Your task to perform on an android device: set default search engine in the chrome app Image 0: 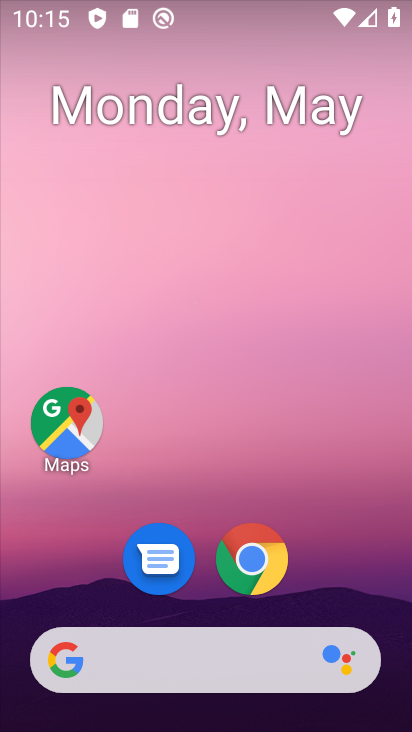
Step 0: click (251, 556)
Your task to perform on an android device: set default search engine in the chrome app Image 1: 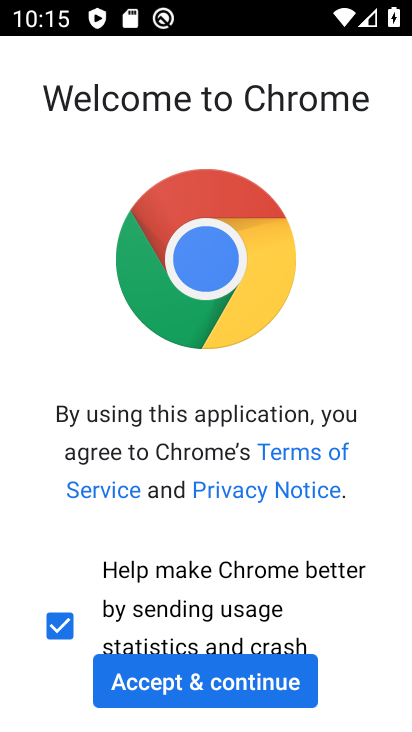
Step 1: click (244, 692)
Your task to perform on an android device: set default search engine in the chrome app Image 2: 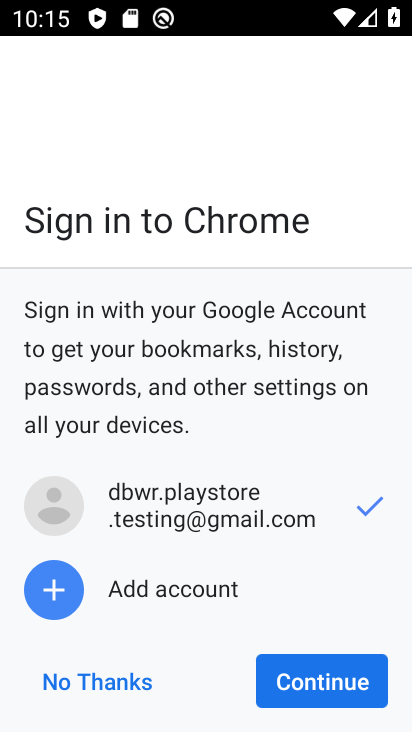
Step 2: click (336, 687)
Your task to perform on an android device: set default search engine in the chrome app Image 3: 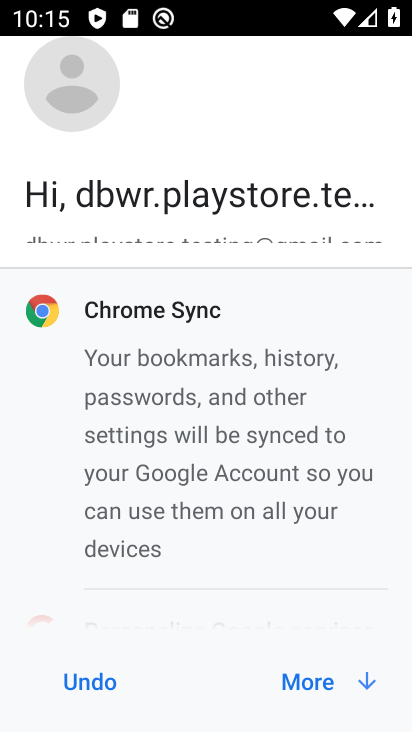
Step 3: click (336, 687)
Your task to perform on an android device: set default search engine in the chrome app Image 4: 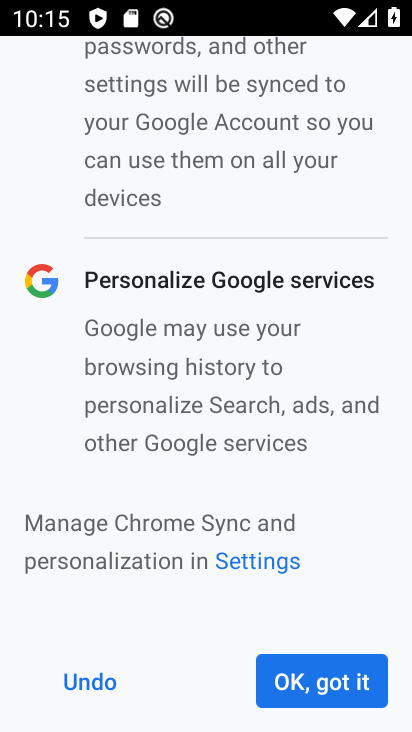
Step 4: click (336, 687)
Your task to perform on an android device: set default search engine in the chrome app Image 5: 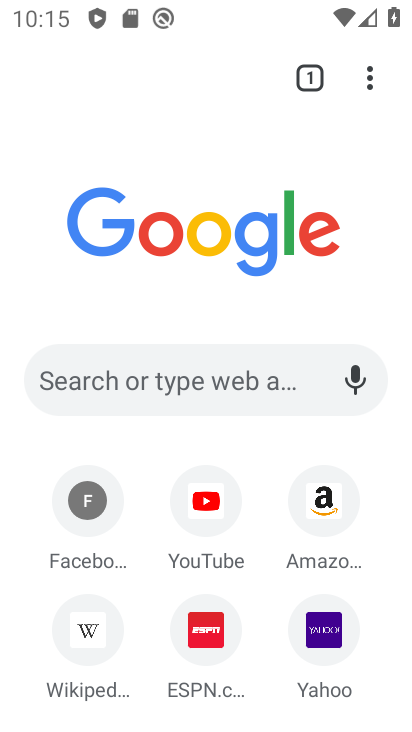
Step 5: click (367, 81)
Your task to perform on an android device: set default search engine in the chrome app Image 6: 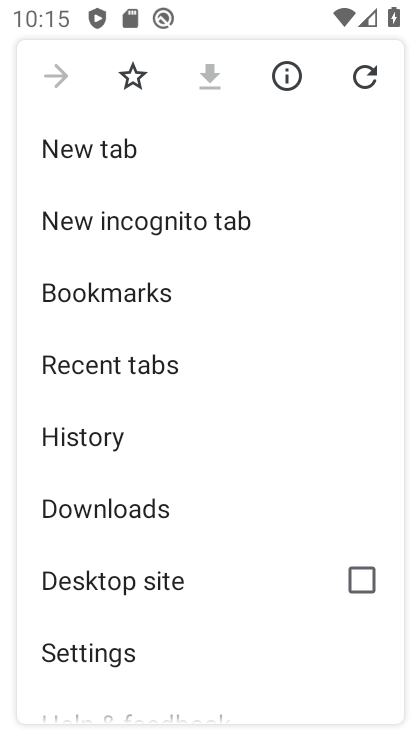
Step 6: drag from (146, 634) to (171, 373)
Your task to perform on an android device: set default search engine in the chrome app Image 7: 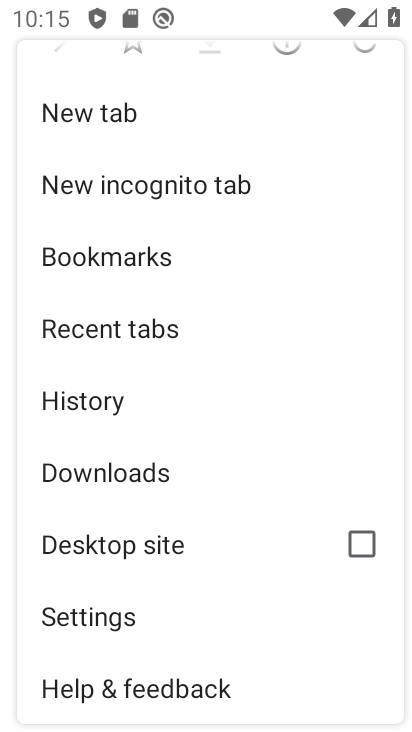
Step 7: click (126, 630)
Your task to perform on an android device: set default search engine in the chrome app Image 8: 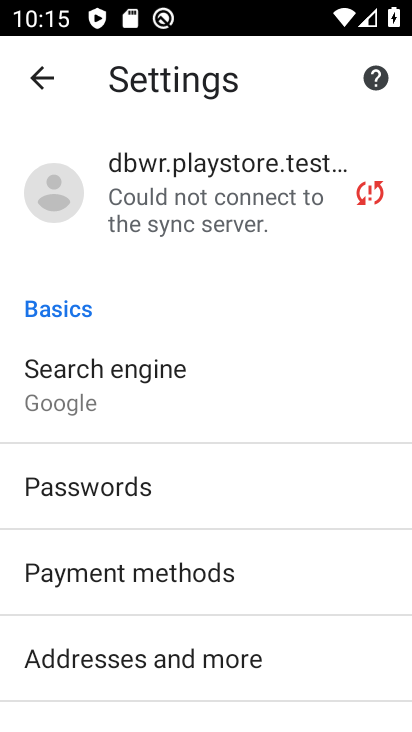
Step 8: click (135, 401)
Your task to perform on an android device: set default search engine in the chrome app Image 9: 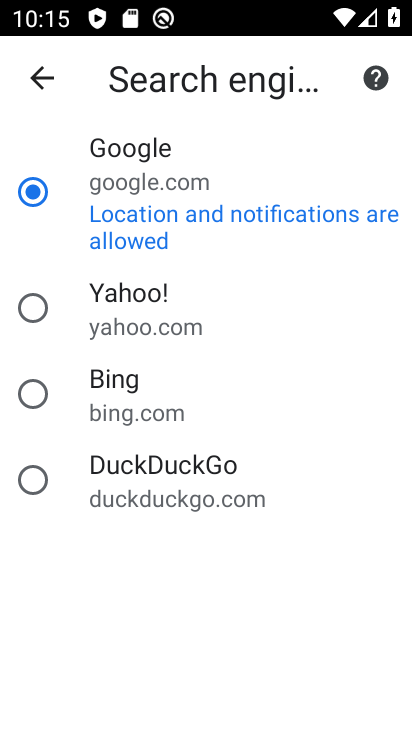
Step 9: click (134, 225)
Your task to perform on an android device: set default search engine in the chrome app Image 10: 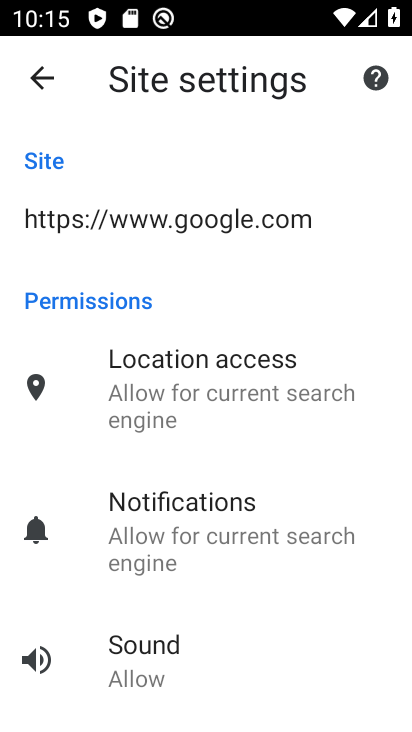
Step 10: drag from (163, 413) to (190, 141)
Your task to perform on an android device: set default search engine in the chrome app Image 11: 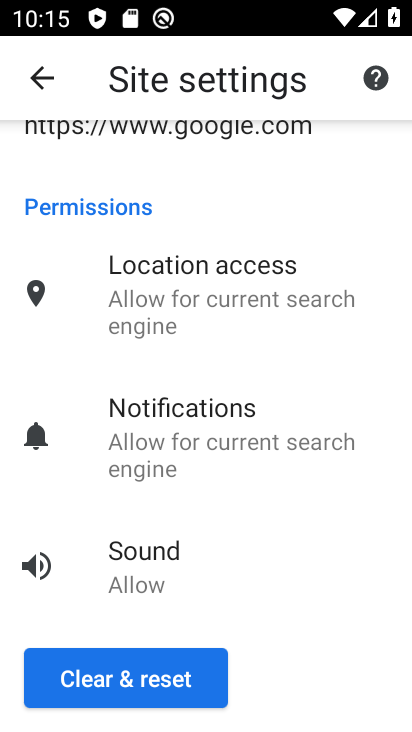
Step 11: click (135, 701)
Your task to perform on an android device: set default search engine in the chrome app Image 12: 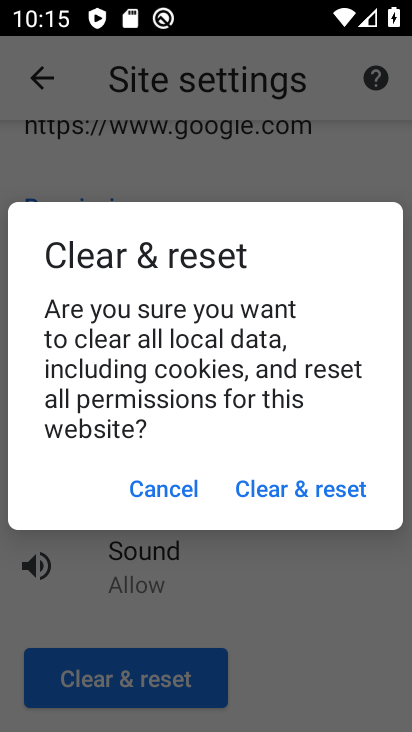
Step 12: click (315, 493)
Your task to perform on an android device: set default search engine in the chrome app Image 13: 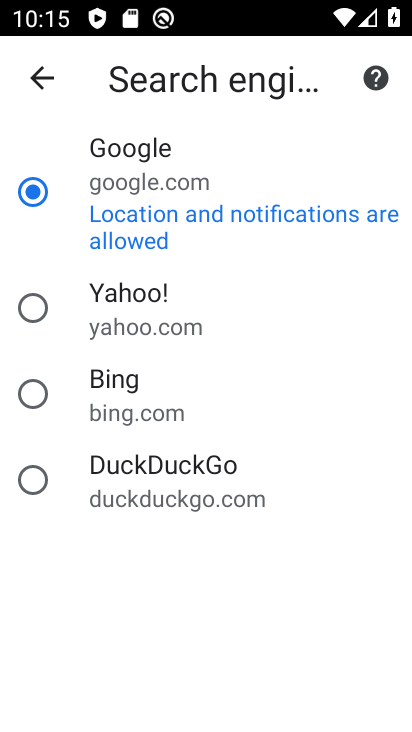
Step 13: task complete